Your task to perform on an android device: open the mobile data screen to see how much data has been used Image 0: 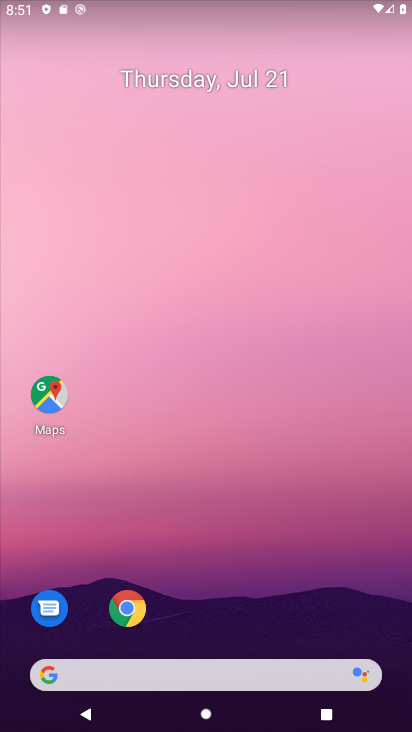
Step 0: drag from (240, 632) to (229, 205)
Your task to perform on an android device: open the mobile data screen to see how much data has been used Image 1: 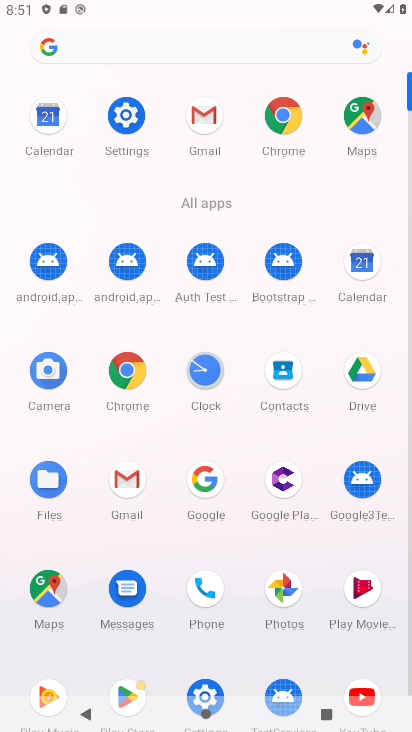
Step 1: click (133, 117)
Your task to perform on an android device: open the mobile data screen to see how much data has been used Image 2: 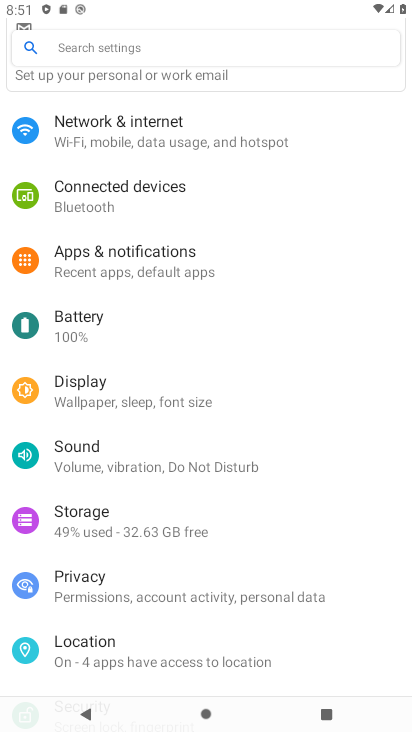
Step 2: click (128, 150)
Your task to perform on an android device: open the mobile data screen to see how much data has been used Image 3: 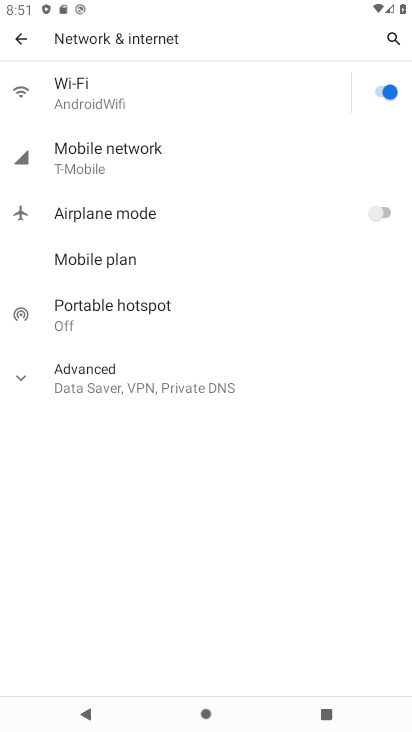
Step 3: click (128, 155)
Your task to perform on an android device: open the mobile data screen to see how much data has been used Image 4: 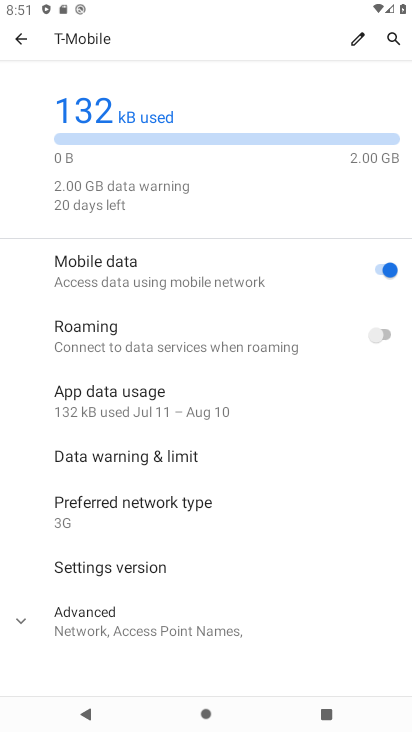
Step 4: task complete